Your task to perform on an android device: open a bookmark in the chrome app Image 0: 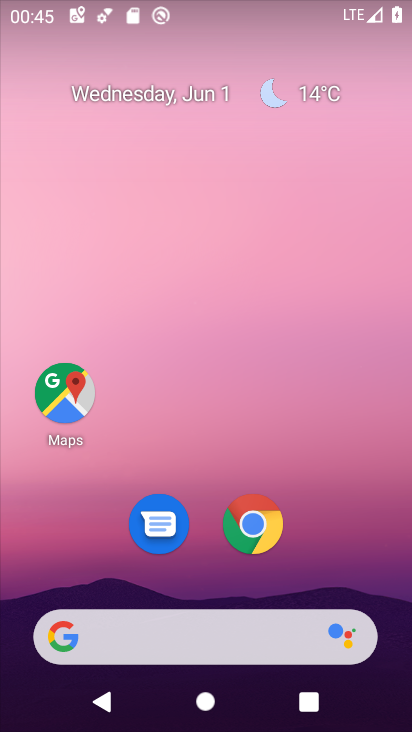
Step 0: click (264, 523)
Your task to perform on an android device: open a bookmark in the chrome app Image 1: 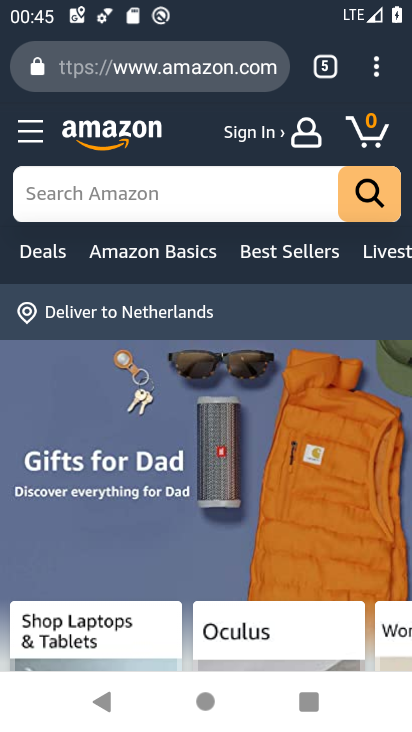
Step 1: click (375, 79)
Your task to perform on an android device: open a bookmark in the chrome app Image 2: 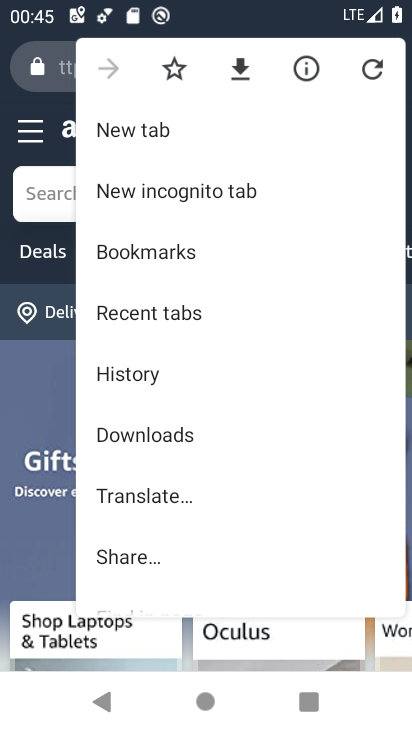
Step 2: click (207, 241)
Your task to perform on an android device: open a bookmark in the chrome app Image 3: 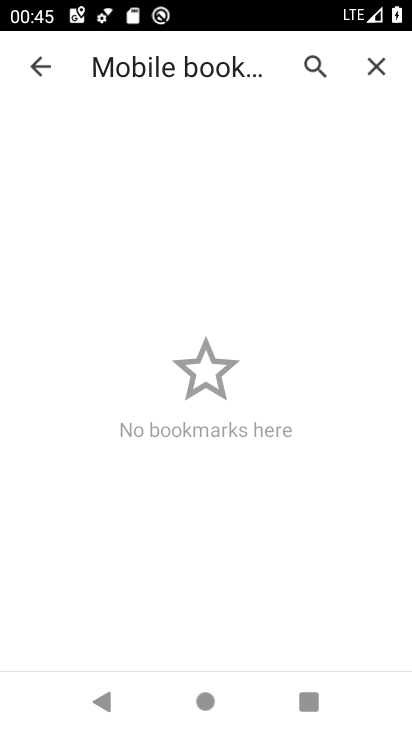
Step 3: task complete